Your task to perform on an android device: delete a single message in the gmail app Image 0: 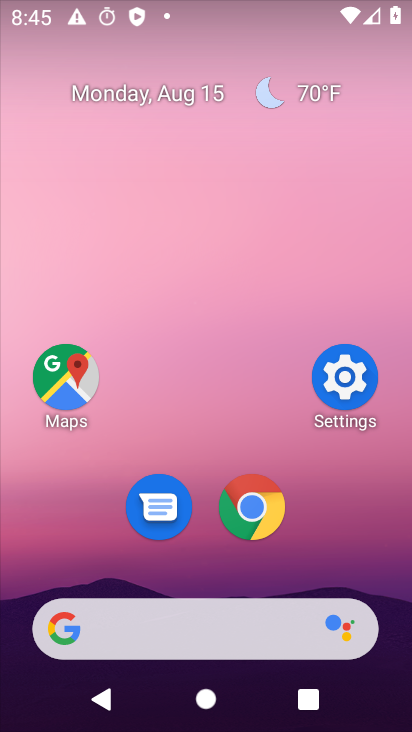
Step 0: drag from (157, 638) to (342, 117)
Your task to perform on an android device: delete a single message in the gmail app Image 1: 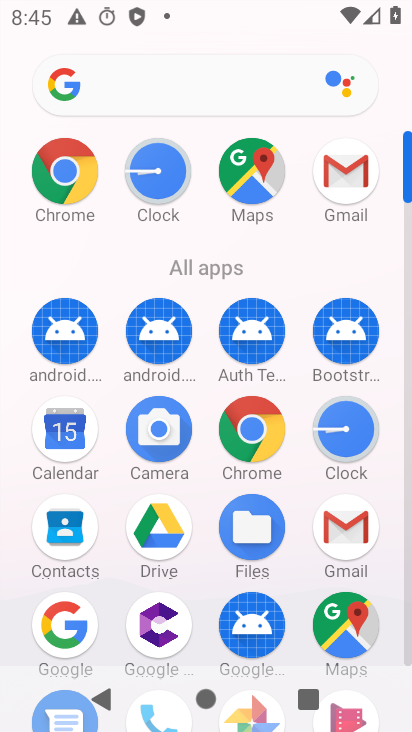
Step 1: click (349, 182)
Your task to perform on an android device: delete a single message in the gmail app Image 2: 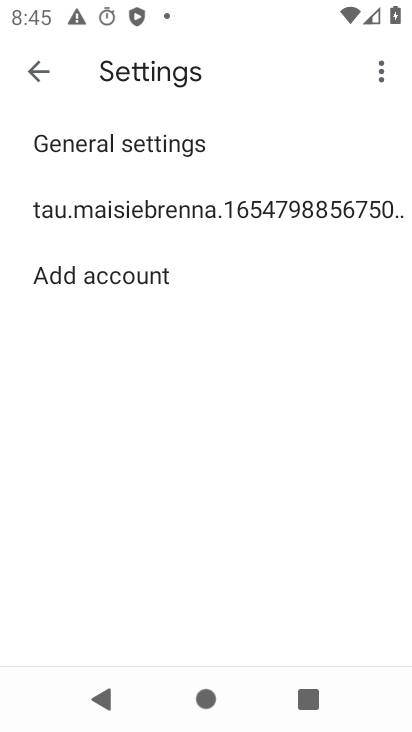
Step 2: click (38, 70)
Your task to perform on an android device: delete a single message in the gmail app Image 3: 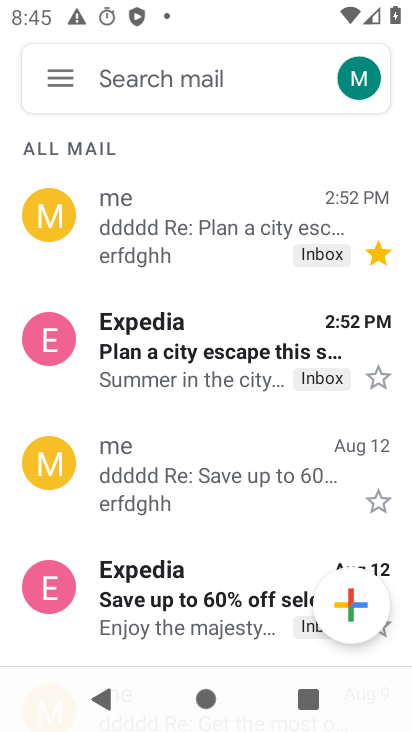
Step 3: click (55, 341)
Your task to perform on an android device: delete a single message in the gmail app Image 4: 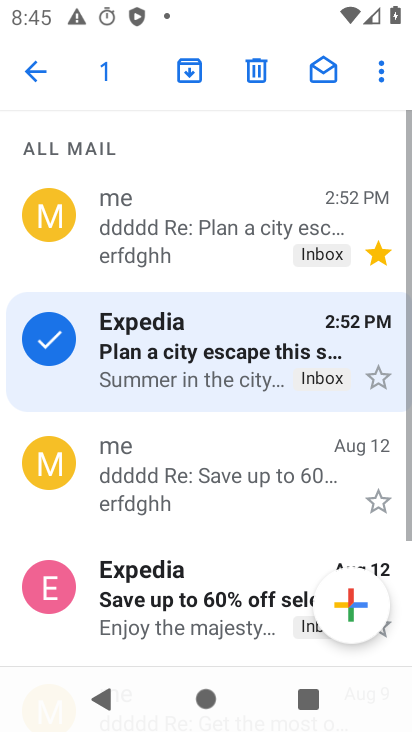
Step 4: click (259, 66)
Your task to perform on an android device: delete a single message in the gmail app Image 5: 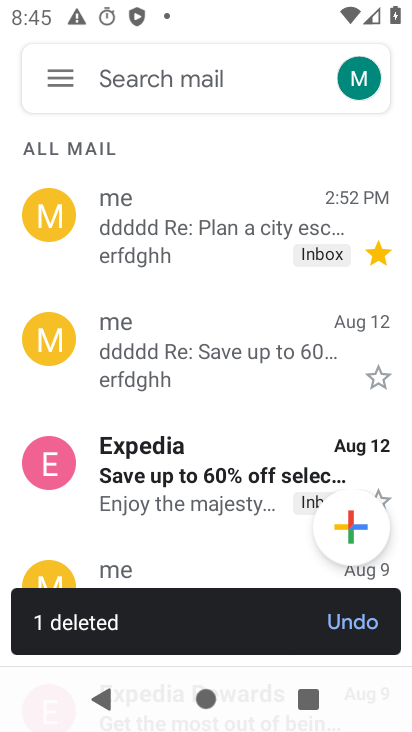
Step 5: task complete